Your task to perform on an android device: toggle notification dots Image 0: 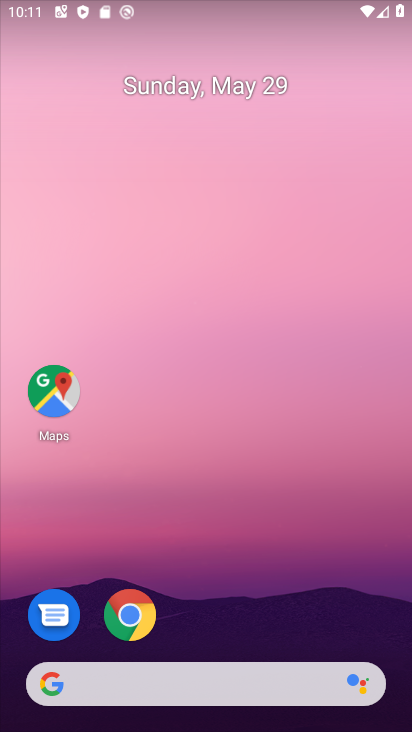
Step 0: drag from (236, 669) to (378, 44)
Your task to perform on an android device: toggle notification dots Image 1: 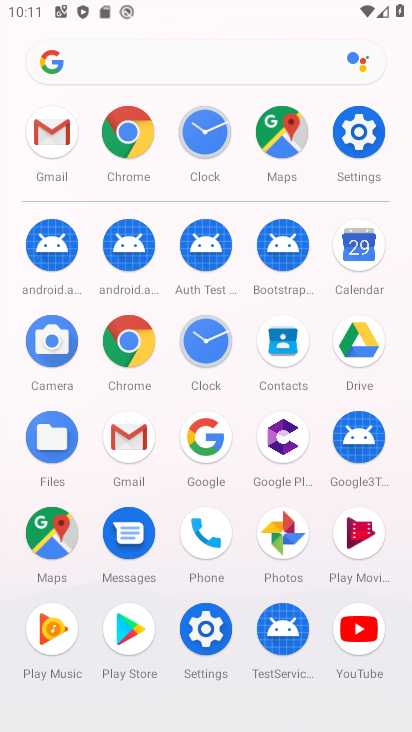
Step 1: click (201, 636)
Your task to perform on an android device: toggle notification dots Image 2: 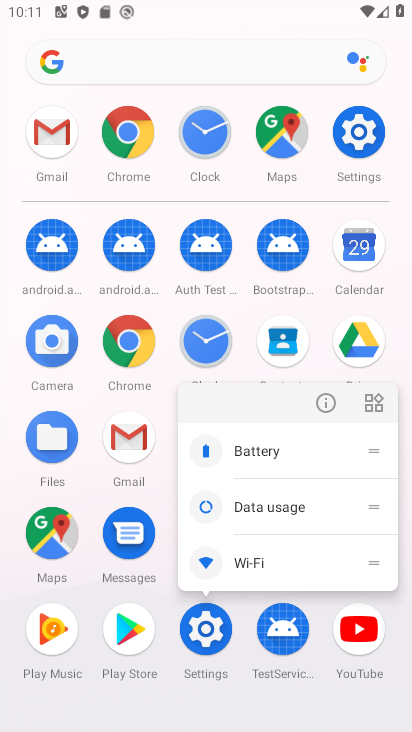
Step 2: click (226, 627)
Your task to perform on an android device: toggle notification dots Image 3: 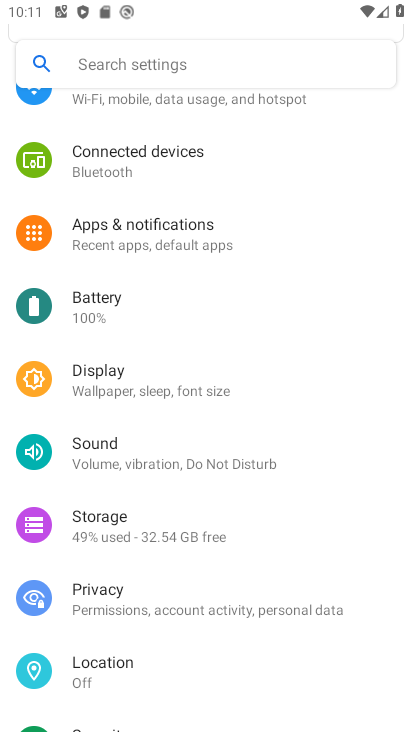
Step 3: click (121, 249)
Your task to perform on an android device: toggle notification dots Image 4: 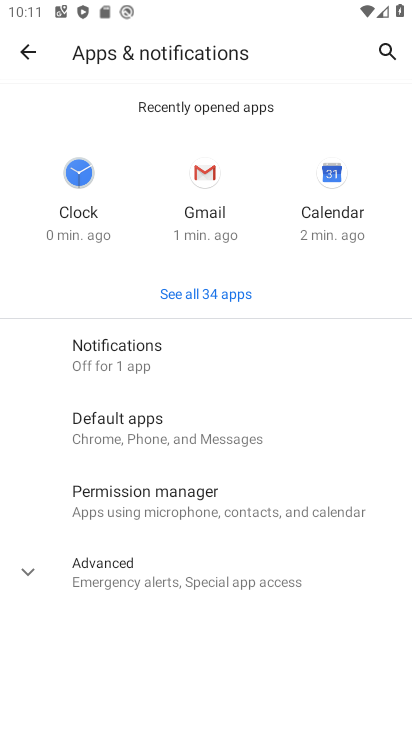
Step 4: click (142, 364)
Your task to perform on an android device: toggle notification dots Image 5: 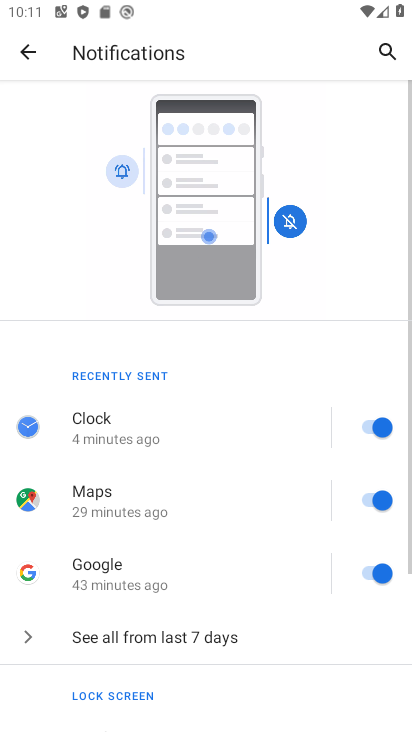
Step 5: drag from (280, 634) to (209, 149)
Your task to perform on an android device: toggle notification dots Image 6: 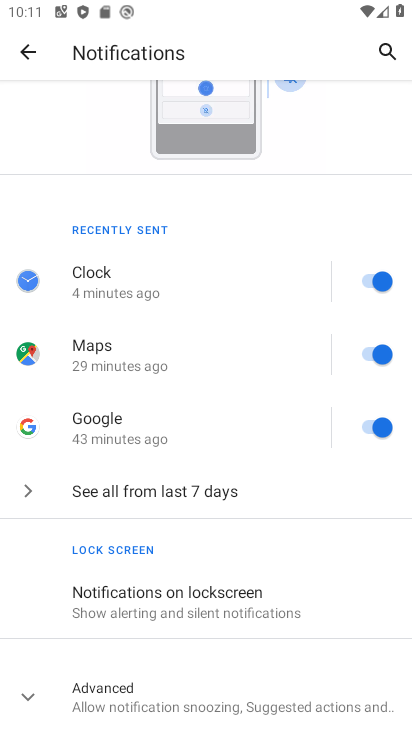
Step 6: drag from (189, 693) to (160, 180)
Your task to perform on an android device: toggle notification dots Image 7: 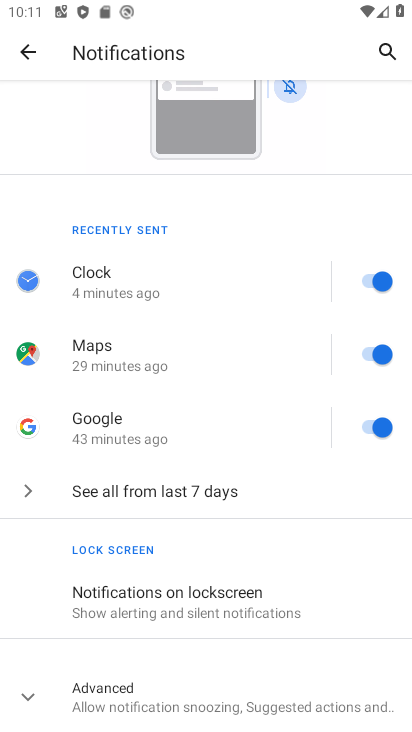
Step 7: click (126, 675)
Your task to perform on an android device: toggle notification dots Image 8: 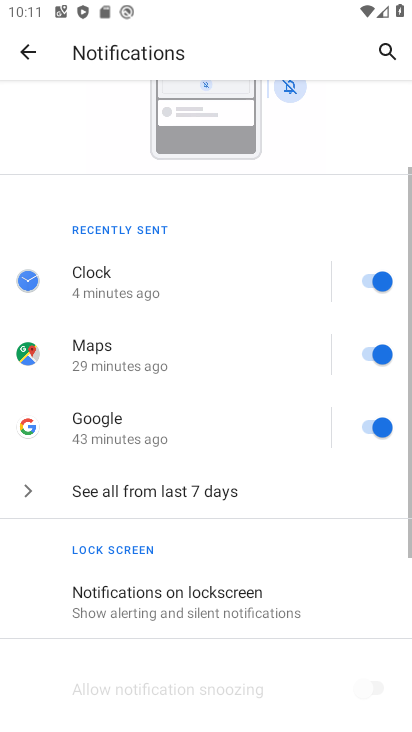
Step 8: drag from (126, 675) to (142, 142)
Your task to perform on an android device: toggle notification dots Image 9: 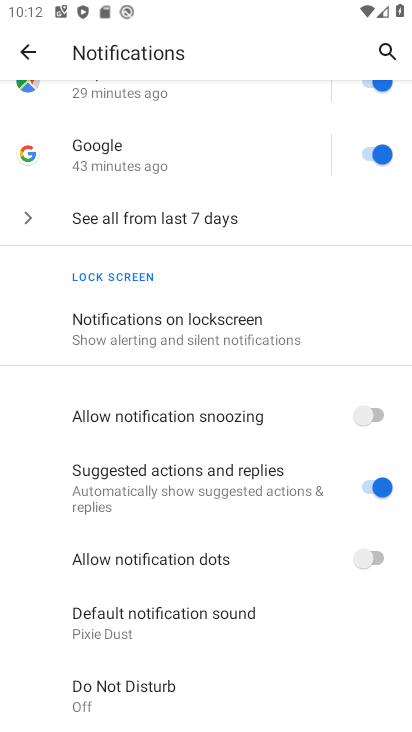
Step 9: click (371, 540)
Your task to perform on an android device: toggle notification dots Image 10: 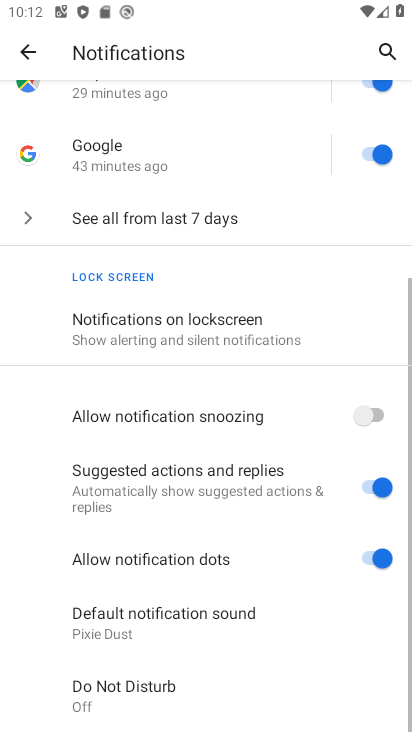
Step 10: task complete